Your task to perform on an android device: Is it going to rain tomorrow? Image 0: 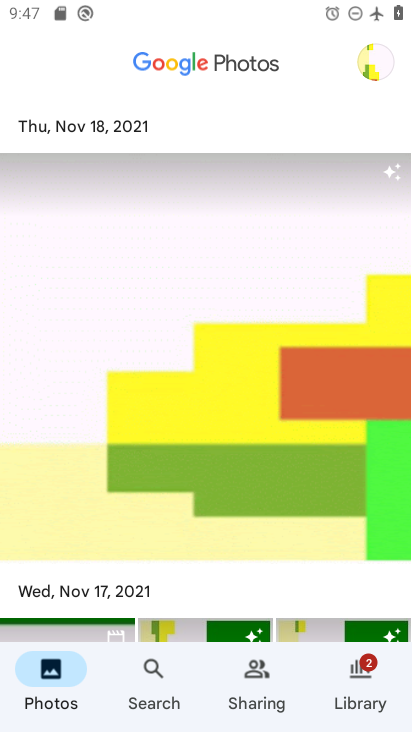
Step 0: press home button
Your task to perform on an android device: Is it going to rain tomorrow? Image 1: 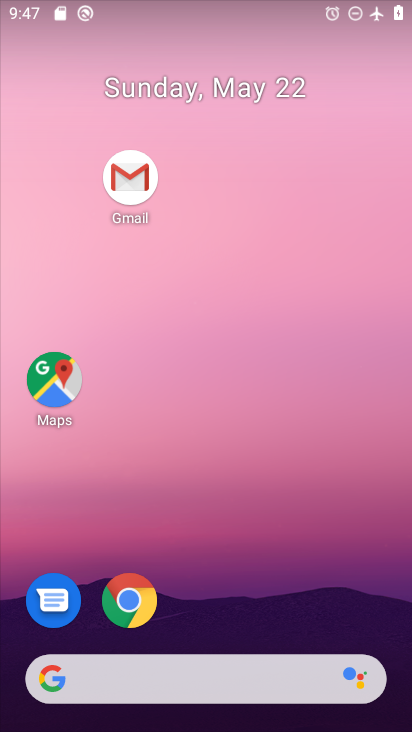
Step 1: drag from (273, 584) to (347, 29)
Your task to perform on an android device: Is it going to rain tomorrow? Image 2: 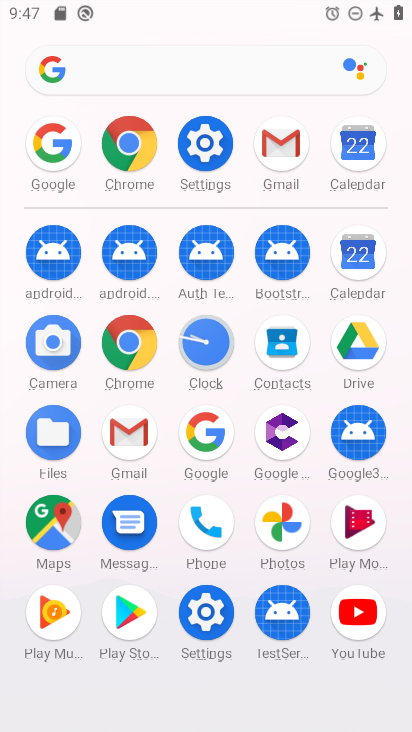
Step 2: click (212, 441)
Your task to perform on an android device: Is it going to rain tomorrow? Image 3: 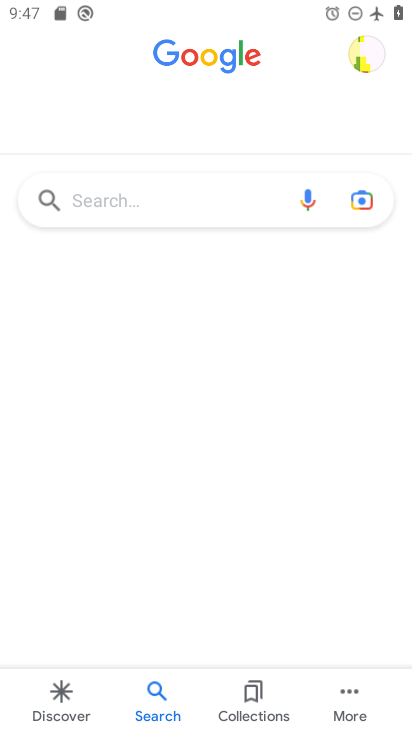
Step 3: click (188, 212)
Your task to perform on an android device: Is it going to rain tomorrow? Image 4: 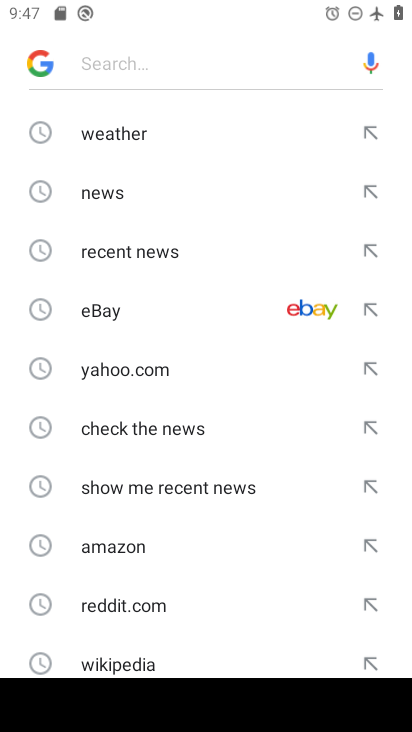
Step 4: click (160, 138)
Your task to perform on an android device: Is it going to rain tomorrow? Image 5: 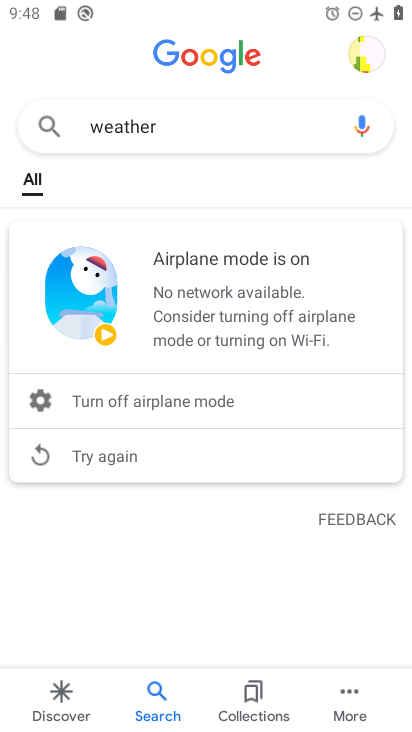
Step 5: task complete